Your task to perform on an android device: open a bookmark in the chrome app Image 0: 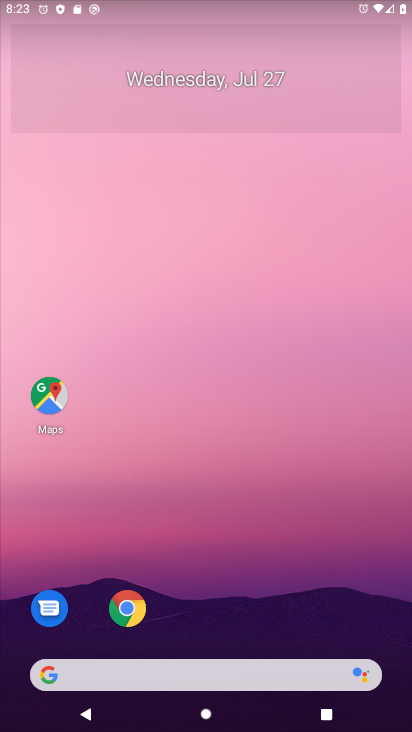
Step 0: click (124, 603)
Your task to perform on an android device: open a bookmark in the chrome app Image 1: 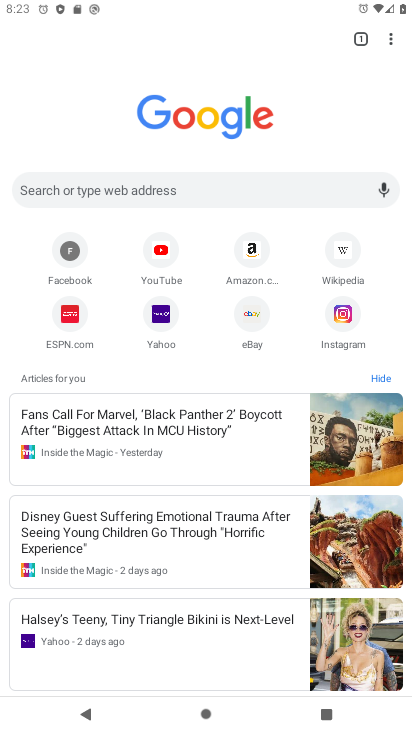
Step 1: click (398, 38)
Your task to perform on an android device: open a bookmark in the chrome app Image 2: 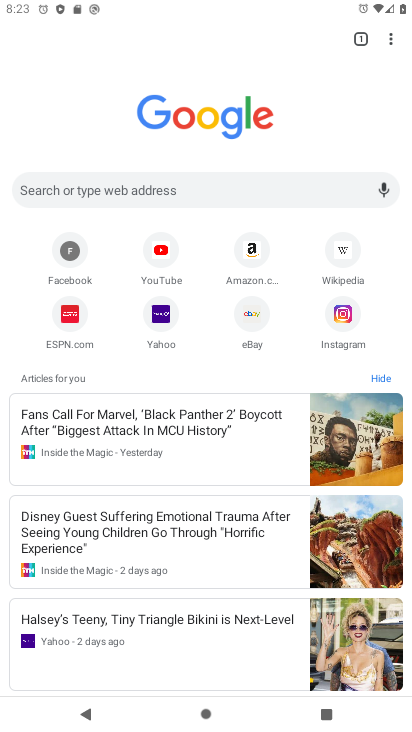
Step 2: click (393, 40)
Your task to perform on an android device: open a bookmark in the chrome app Image 3: 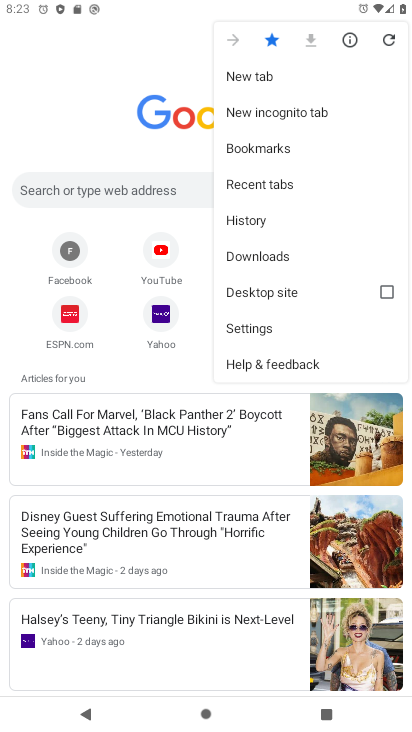
Step 3: click (291, 149)
Your task to perform on an android device: open a bookmark in the chrome app Image 4: 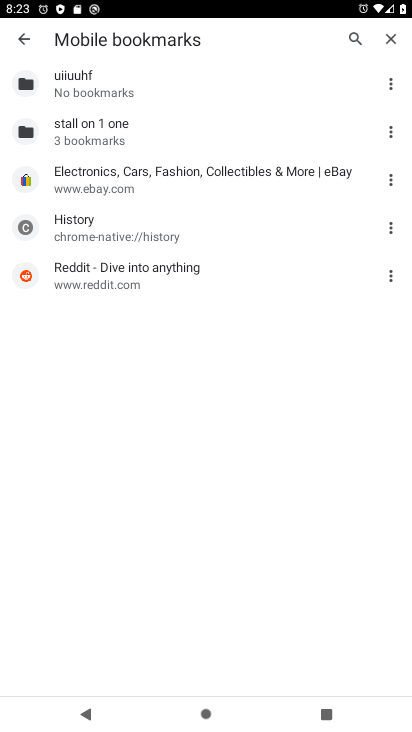
Step 4: task complete